Your task to perform on an android device: Go to calendar. Show me events next week Image 0: 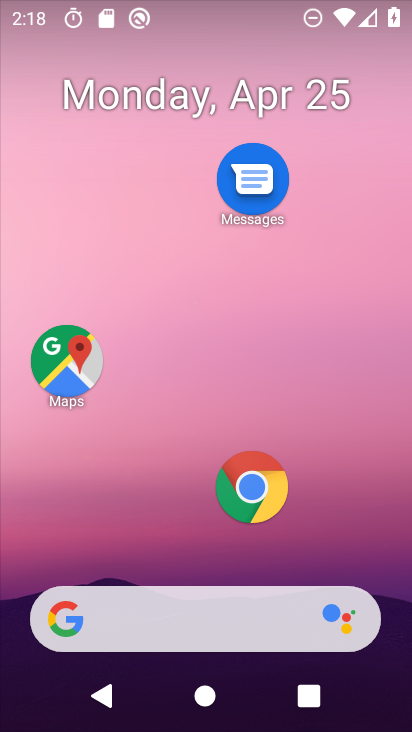
Step 0: drag from (210, 569) to (137, 33)
Your task to perform on an android device: Go to calendar. Show me events next week Image 1: 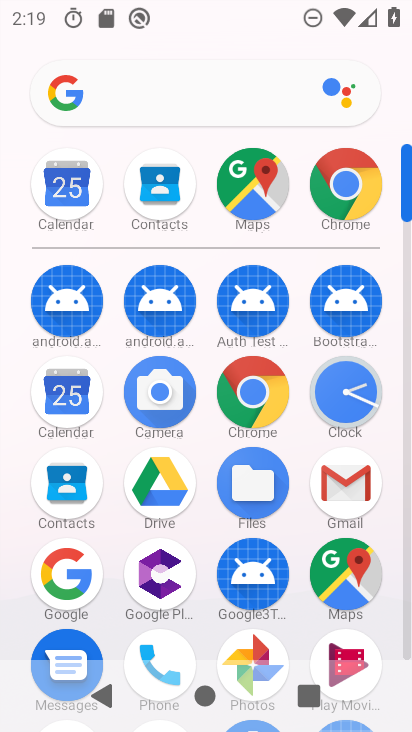
Step 1: click (46, 376)
Your task to perform on an android device: Go to calendar. Show me events next week Image 2: 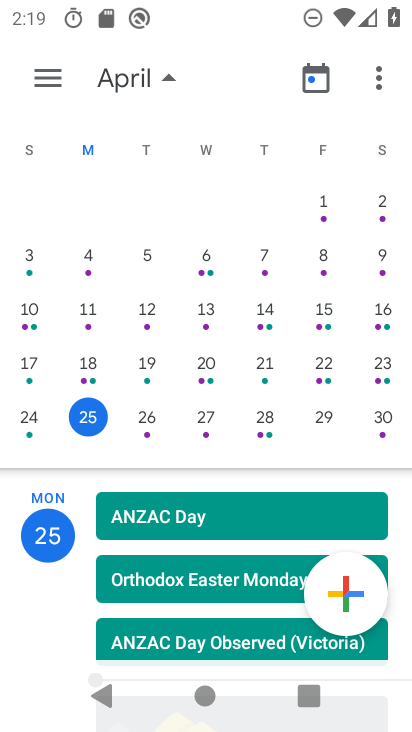
Step 2: drag from (374, 368) to (10, 404)
Your task to perform on an android device: Go to calendar. Show me events next week Image 3: 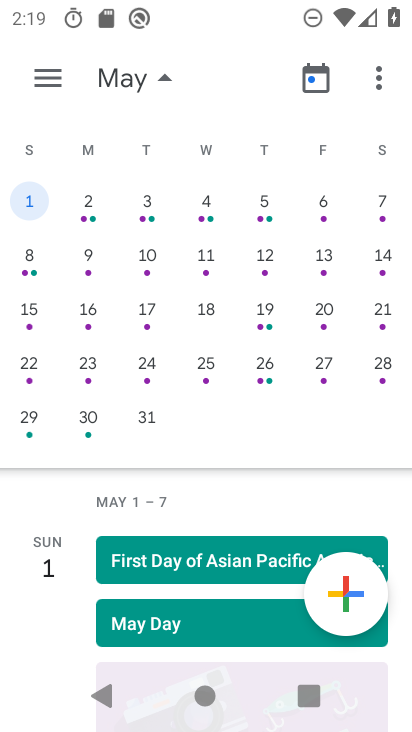
Step 3: click (265, 209)
Your task to perform on an android device: Go to calendar. Show me events next week Image 4: 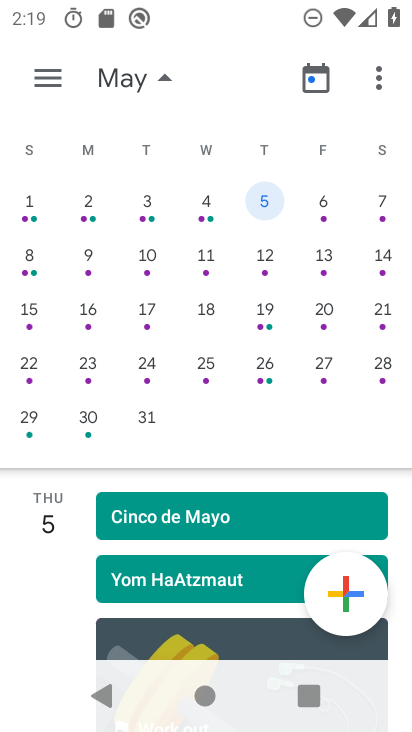
Step 4: click (33, 64)
Your task to perform on an android device: Go to calendar. Show me events next week Image 5: 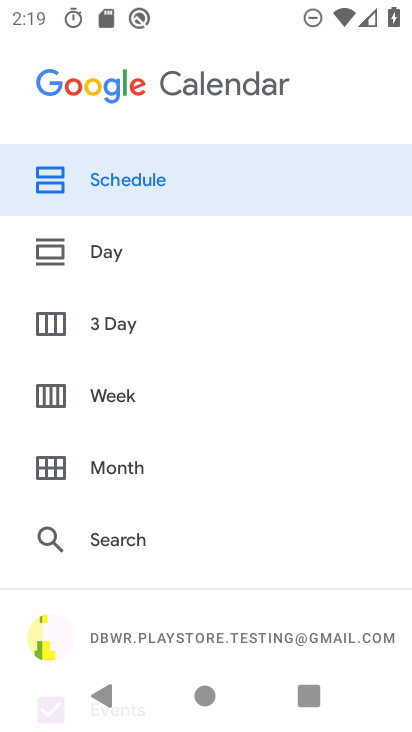
Step 5: click (105, 394)
Your task to perform on an android device: Go to calendar. Show me events next week Image 6: 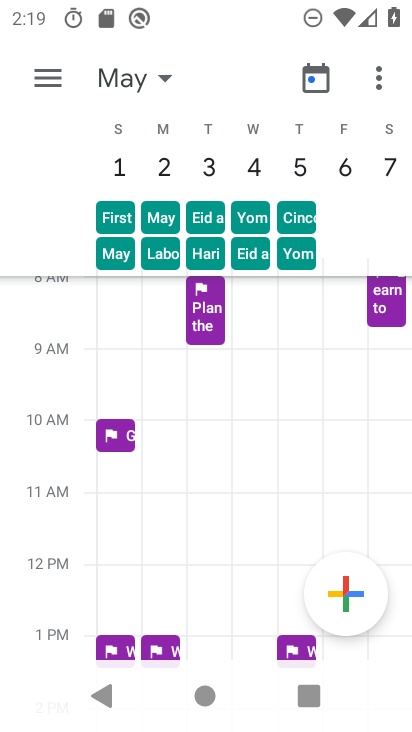
Step 6: task complete